Your task to perform on an android device: Open notification settings Image 0: 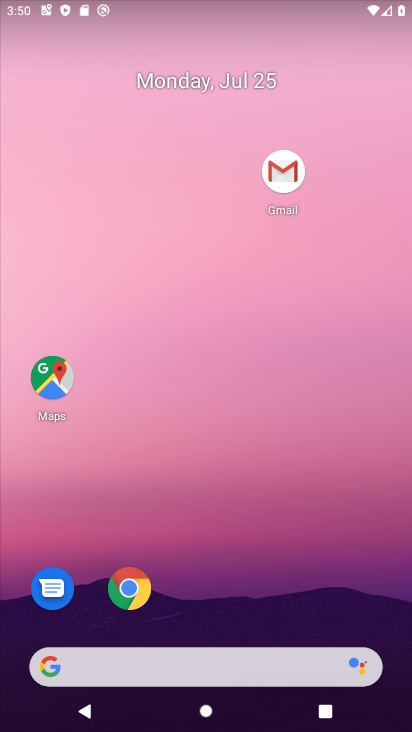
Step 0: drag from (308, 593) to (254, 31)
Your task to perform on an android device: Open notification settings Image 1: 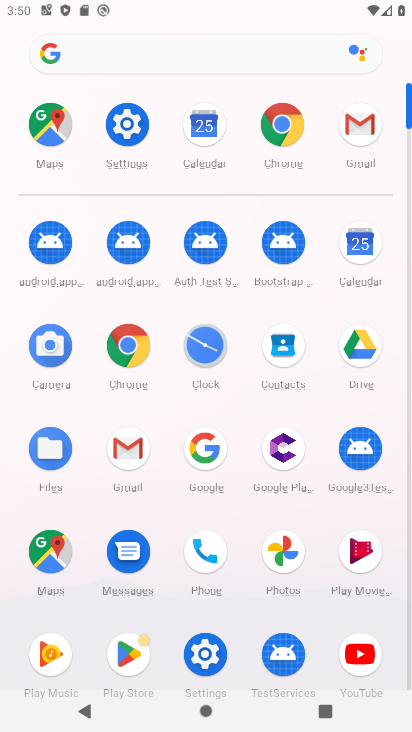
Step 1: click (122, 128)
Your task to perform on an android device: Open notification settings Image 2: 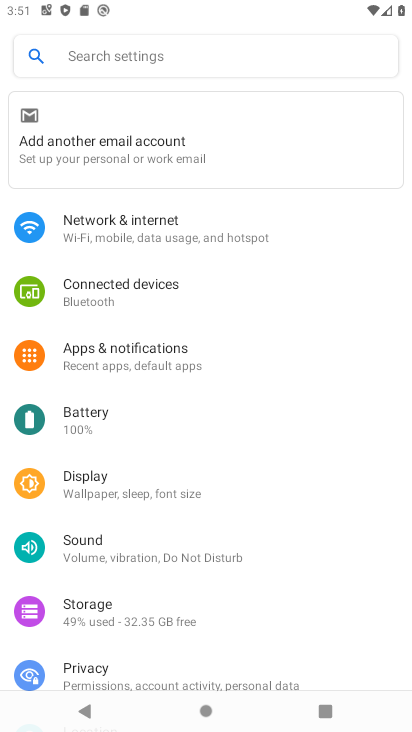
Step 2: click (170, 342)
Your task to perform on an android device: Open notification settings Image 3: 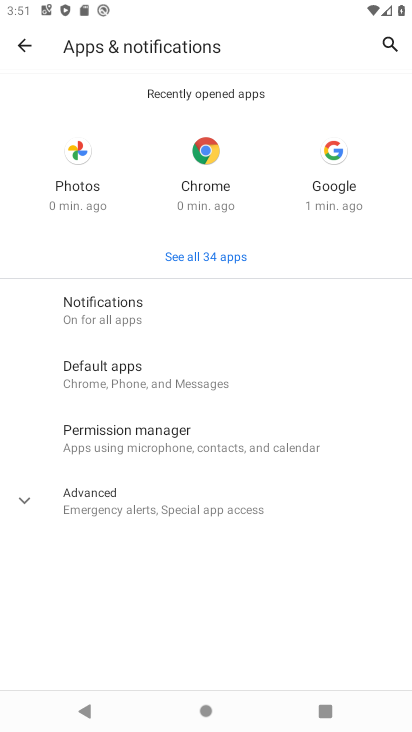
Step 3: click (165, 320)
Your task to perform on an android device: Open notification settings Image 4: 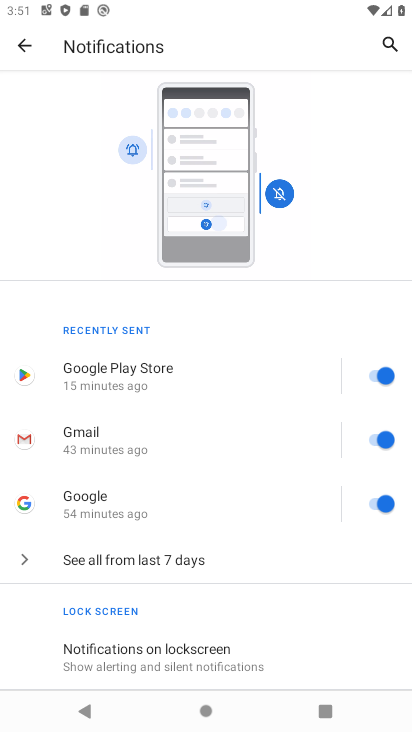
Step 4: task complete